Your task to perform on an android device: Open Google Chrome and click the shortcut for Amazon.com Image 0: 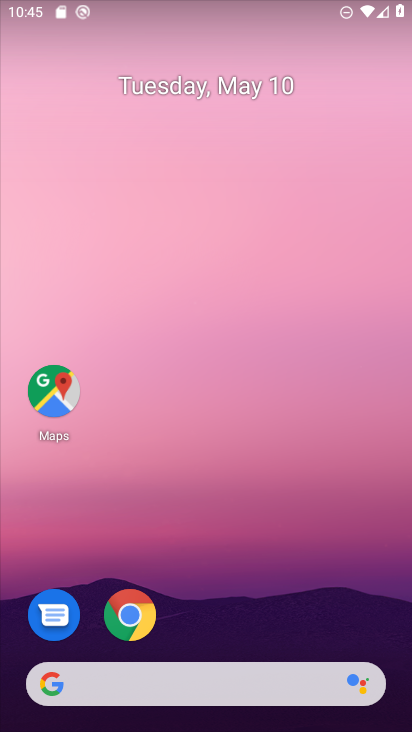
Step 0: click (133, 612)
Your task to perform on an android device: Open Google Chrome and click the shortcut for Amazon.com Image 1: 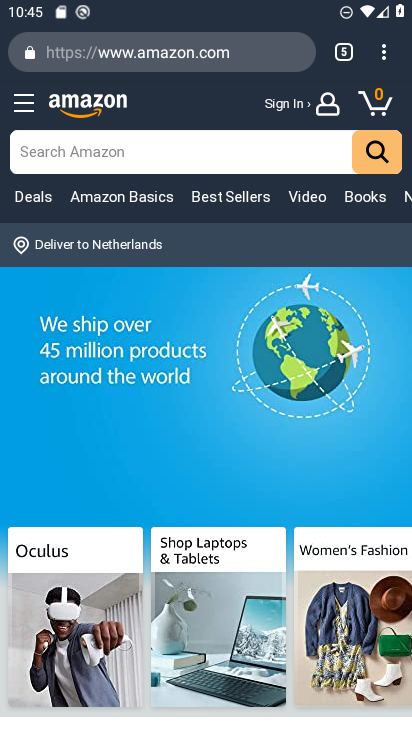
Step 1: click (347, 51)
Your task to perform on an android device: Open Google Chrome and click the shortcut for Amazon.com Image 2: 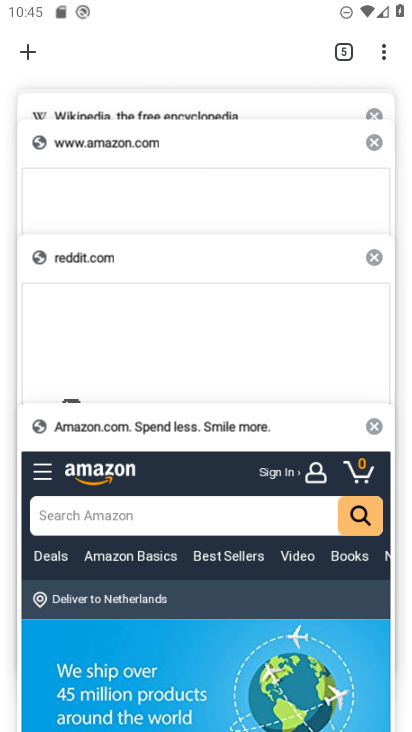
Step 2: click (373, 426)
Your task to perform on an android device: Open Google Chrome and click the shortcut for Amazon.com Image 3: 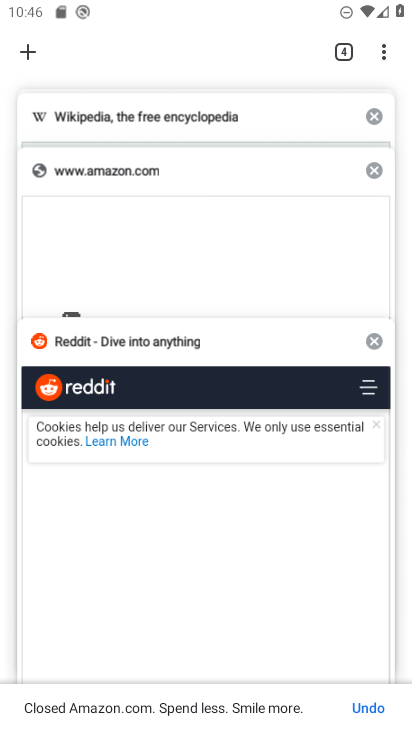
Step 3: click (375, 337)
Your task to perform on an android device: Open Google Chrome and click the shortcut for Amazon.com Image 4: 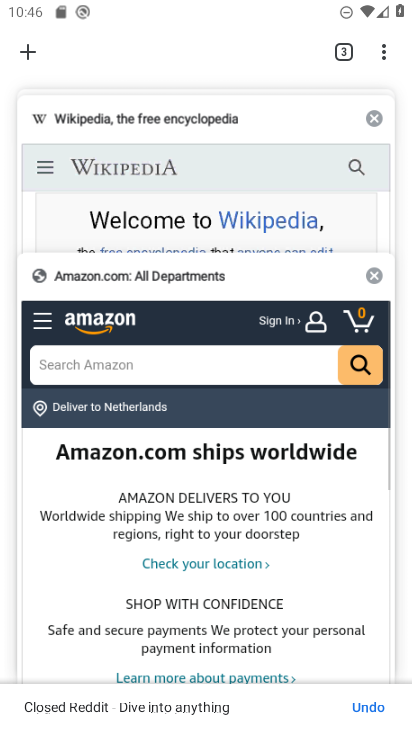
Step 4: click (371, 277)
Your task to perform on an android device: Open Google Chrome and click the shortcut for Amazon.com Image 5: 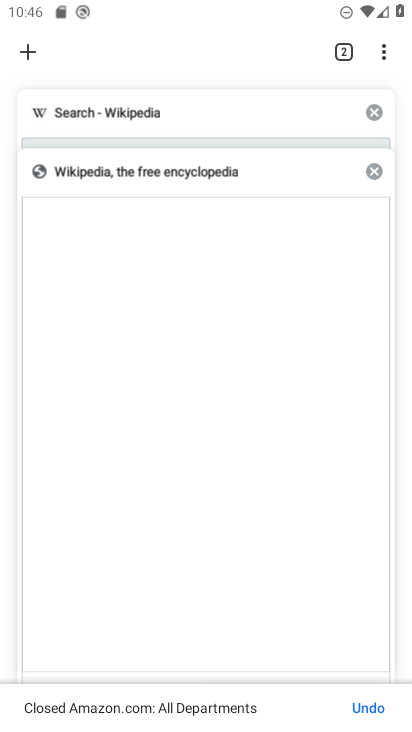
Step 5: click (377, 173)
Your task to perform on an android device: Open Google Chrome and click the shortcut for Amazon.com Image 6: 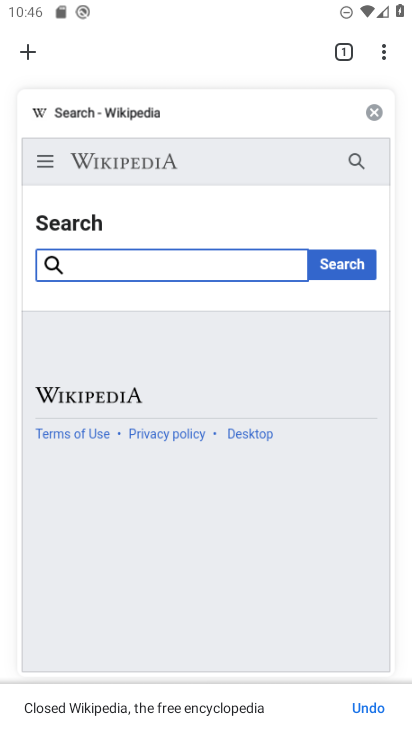
Step 6: click (375, 115)
Your task to perform on an android device: Open Google Chrome and click the shortcut for Amazon.com Image 7: 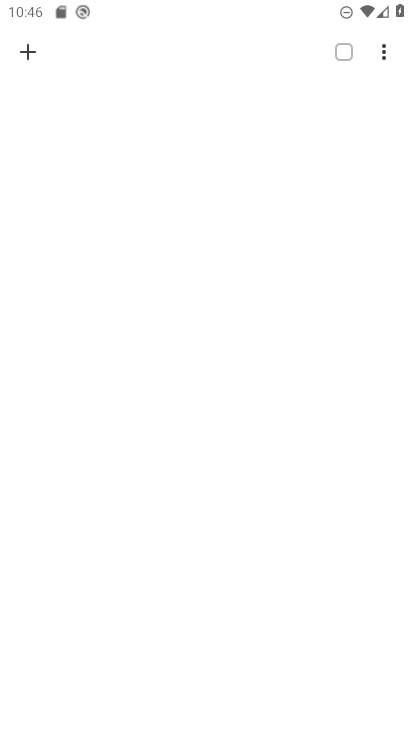
Step 7: click (32, 54)
Your task to perform on an android device: Open Google Chrome and click the shortcut for Amazon.com Image 8: 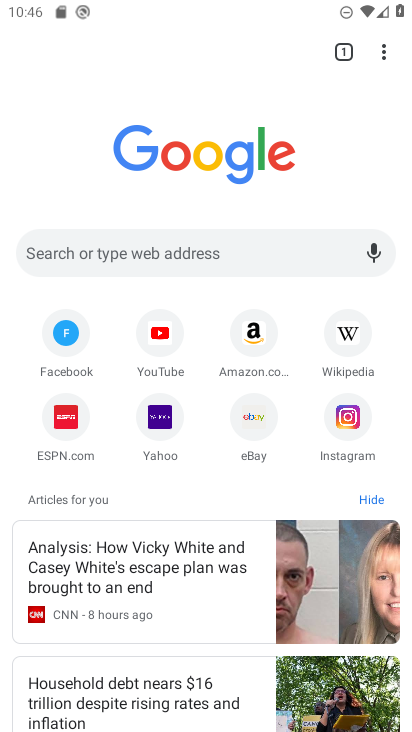
Step 8: click (256, 341)
Your task to perform on an android device: Open Google Chrome and click the shortcut for Amazon.com Image 9: 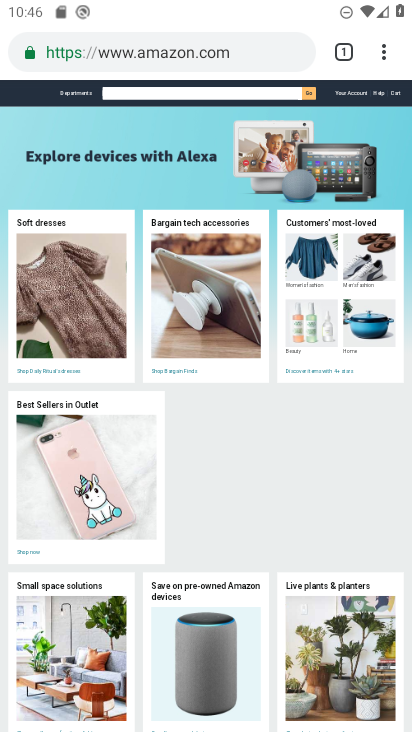
Step 9: task complete